Your task to perform on an android device: Open Maps and search for coffee Image 0: 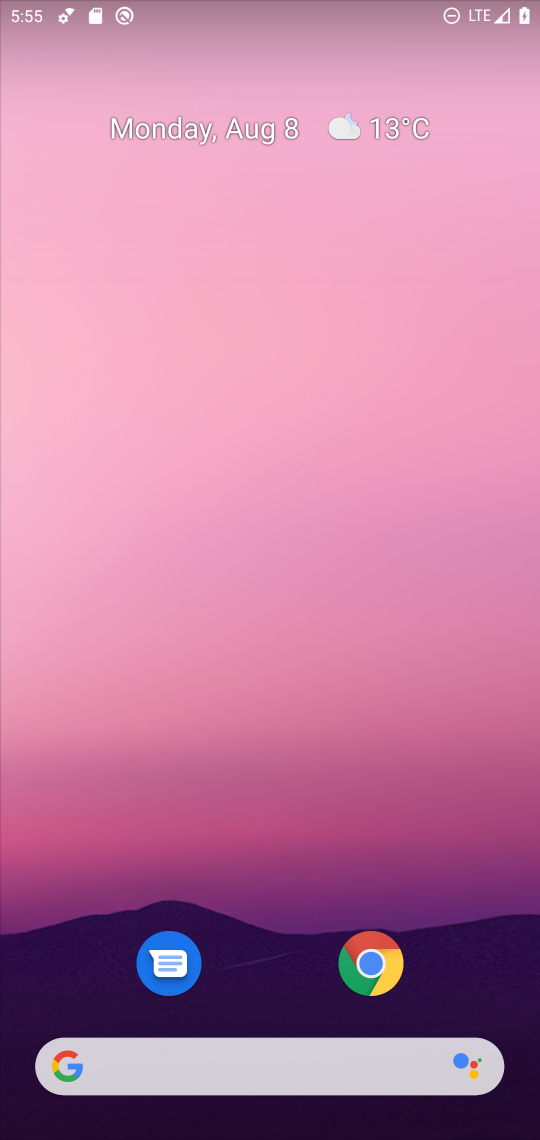
Step 0: drag from (253, 882) to (194, 172)
Your task to perform on an android device: Open Maps and search for coffee Image 1: 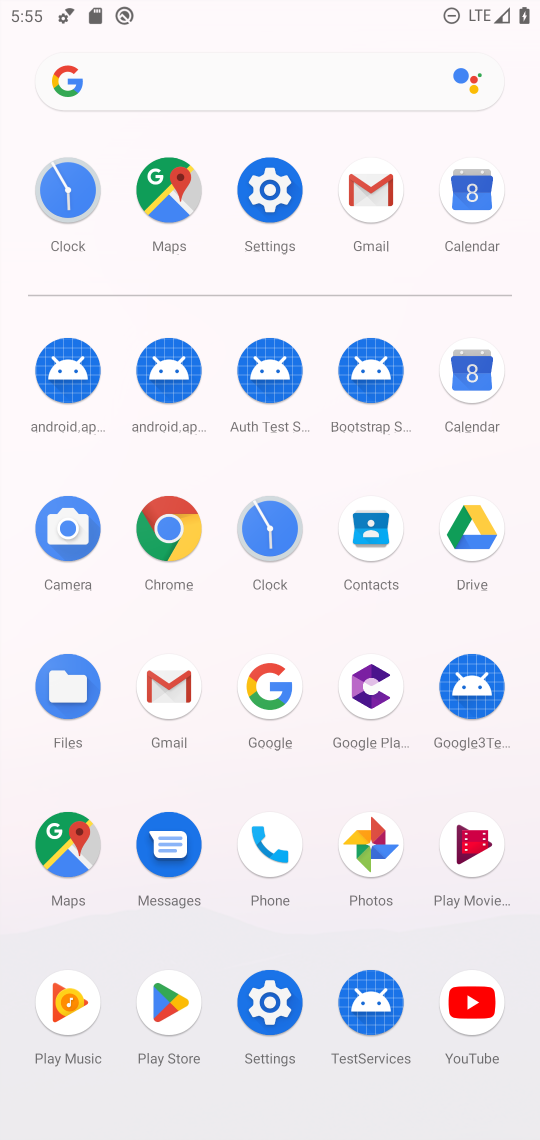
Step 1: click (58, 854)
Your task to perform on an android device: Open Maps and search for coffee Image 2: 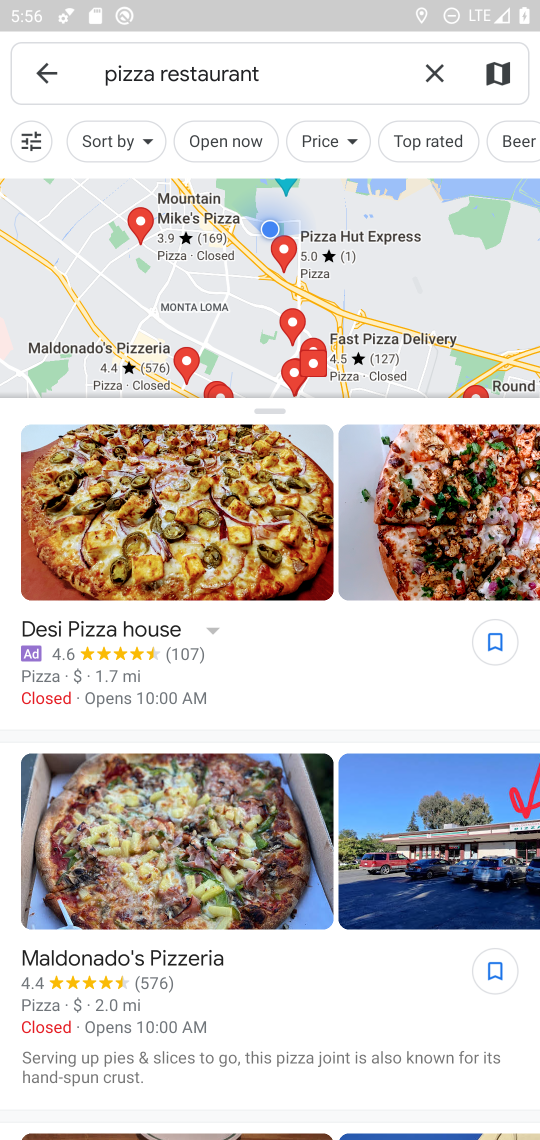
Step 2: click (422, 80)
Your task to perform on an android device: Open Maps and search for coffee Image 3: 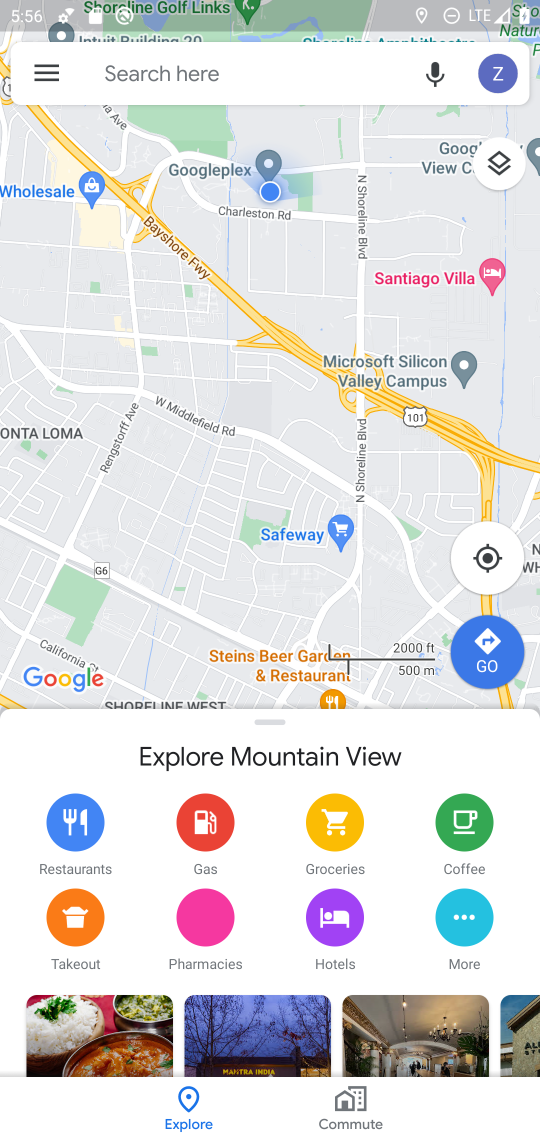
Step 3: click (318, 80)
Your task to perform on an android device: Open Maps and search for coffee Image 4: 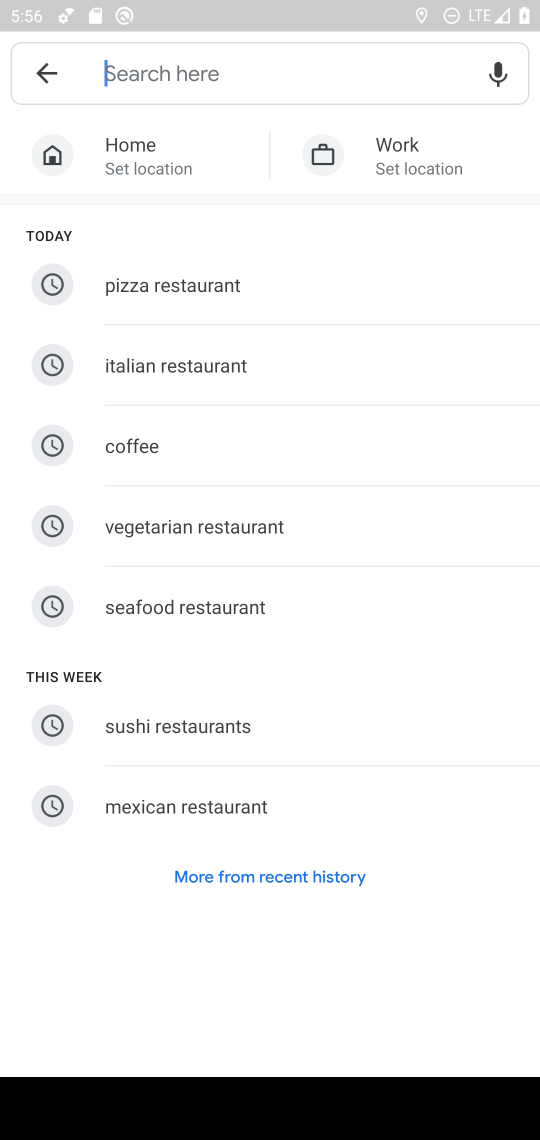
Step 4: type "coffee"
Your task to perform on an android device: Open Maps and search for coffee Image 5: 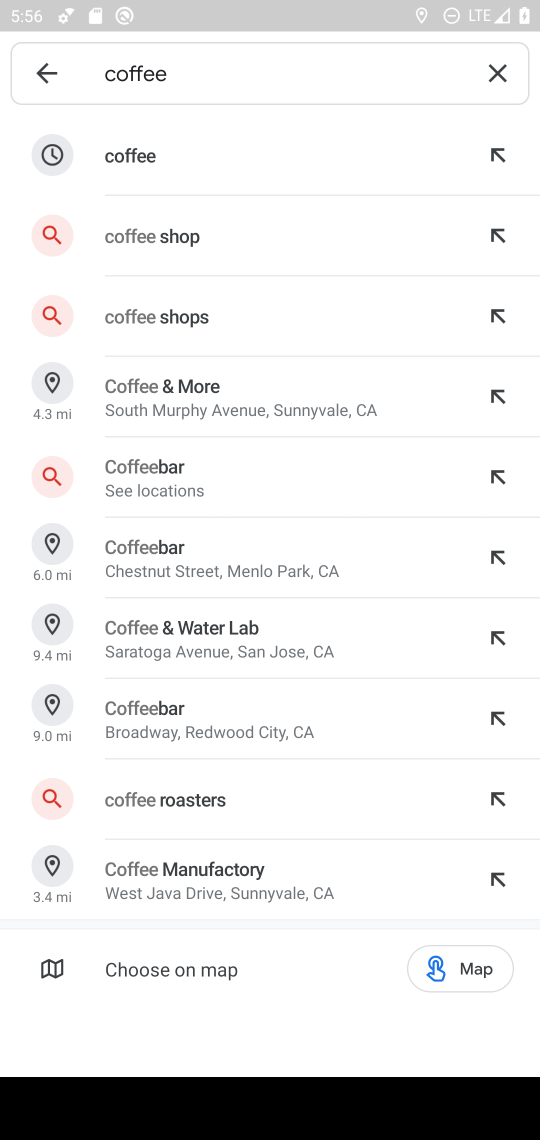
Step 5: click (152, 165)
Your task to perform on an android device: Open Maps and search for coffee Image 6: 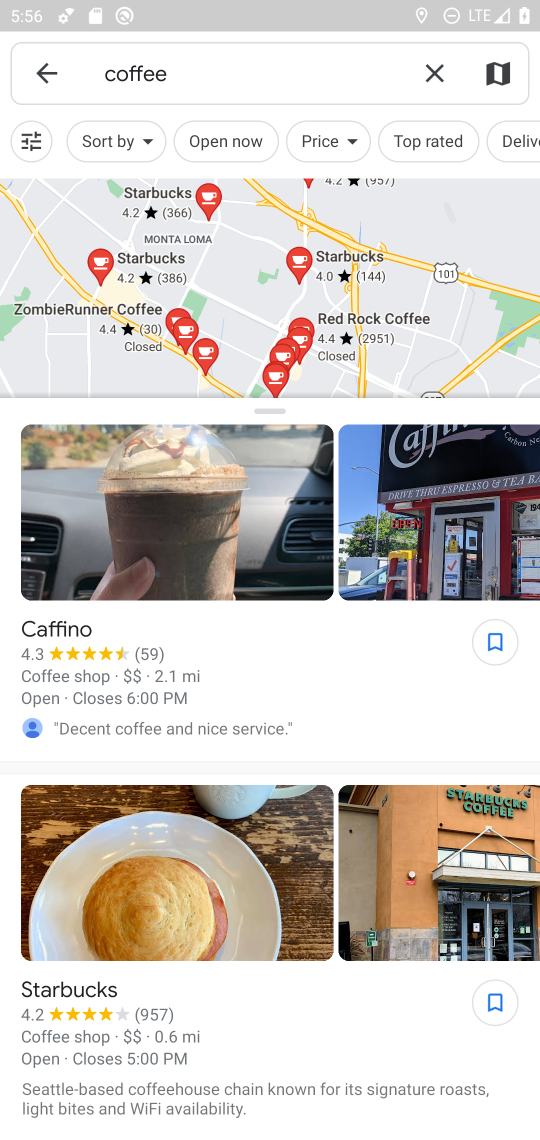
Step 6: task complete